Your task to perform on an android device: turn off notifications in google photos Image 0: 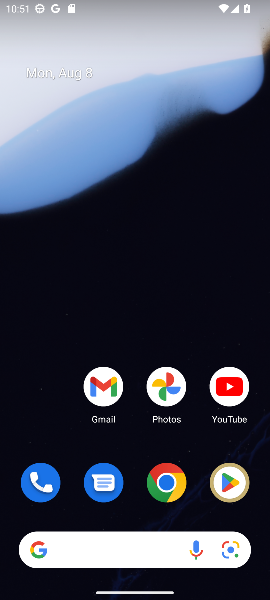
Step 0: click (167, 384)
Your task to perform on an android device: turn off notifications in google photos Image 1: 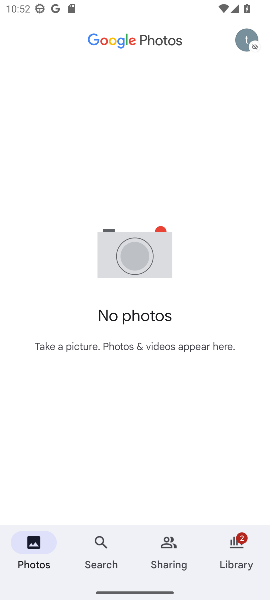
Step 1: click (240, 35)
Your task to perform on an android device: turn off notifications in google photos Image 2: 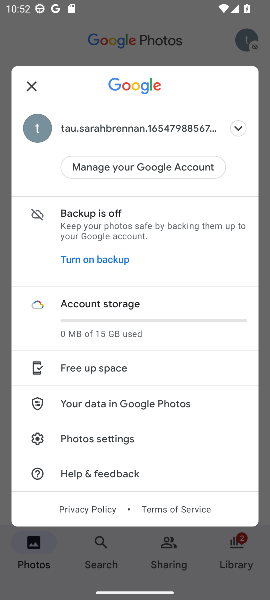
Step 2: click (101, 435)
Your task to perform on an android device: turn off notifications in google photos Image 3: 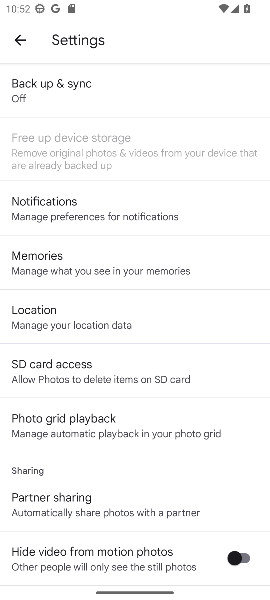
Step 3: click (72, 215)
Your task to perform on an android device: turn off notifications in google photos Image 4: 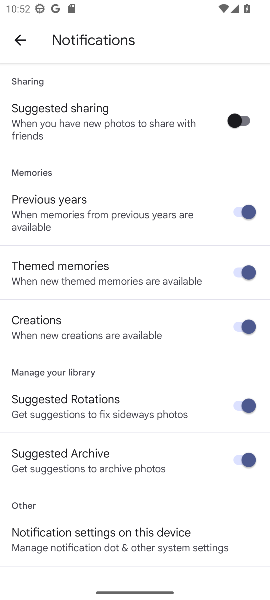
Step 4: click (105, 531)
Your task to perform on an android device: turn off notifications in google photos Image 5: 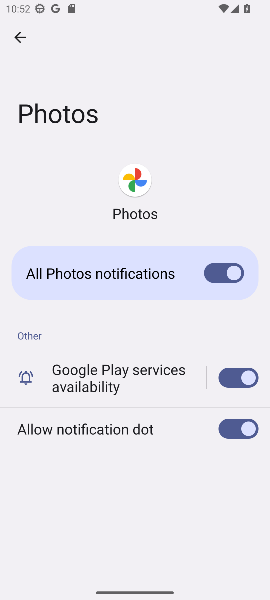
Step 5: click (221, 270)
Your task to perform on an android device: turn off notifications in google photos Image 6: 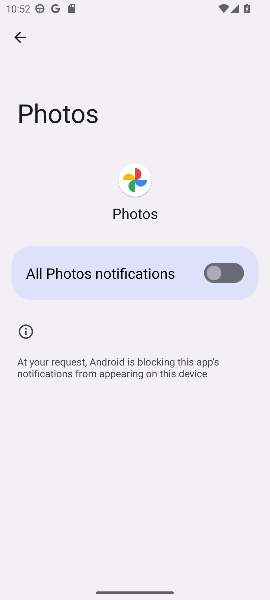
Step 6: task complete